Your task to perform on an android device: Go to Reddit.com Image 0: 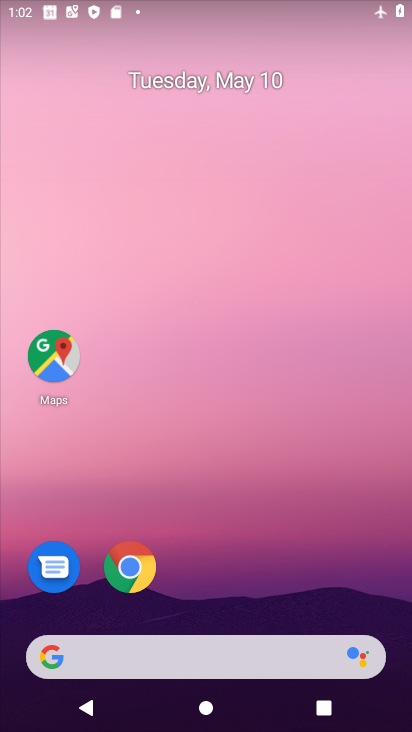
Step 0: drag from (390, 626) to (240, 40)
Your task to perform on an android device: Go to Reddit.com Image 1: 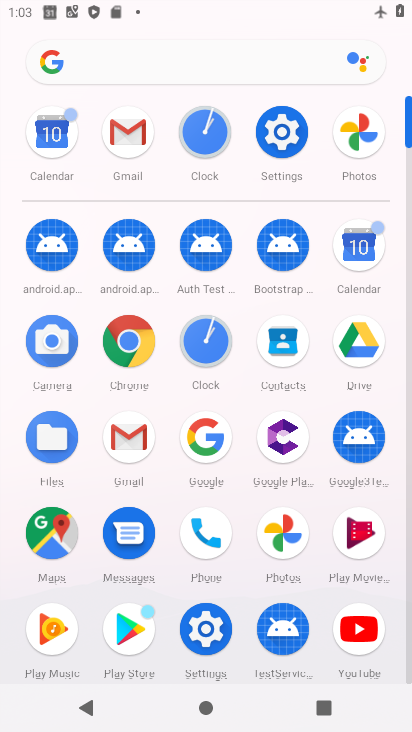
Step 1: click (143, 336)
Your task to perform on an android device: Go to Reddit.com Image 2: 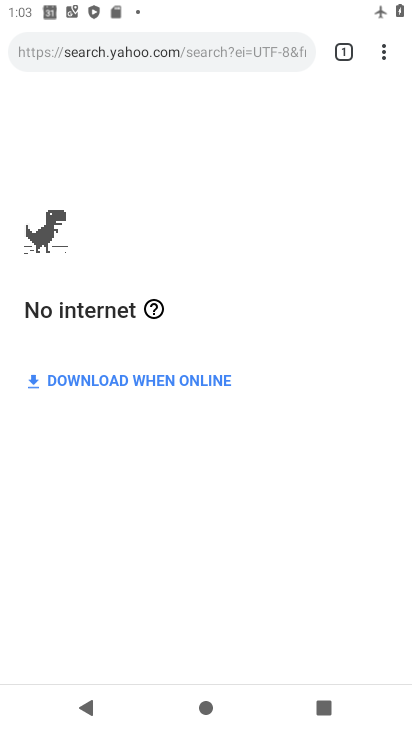
Step 2: press back button
Your task to perform on an android device: Go to Reddit.com Image 3: 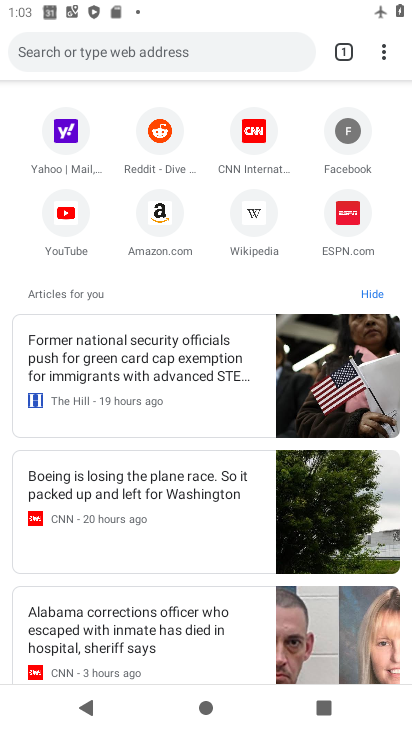
Step 3: click (159, 129)
Your task to perform on an android device: Go to Reddit.com Image 4: 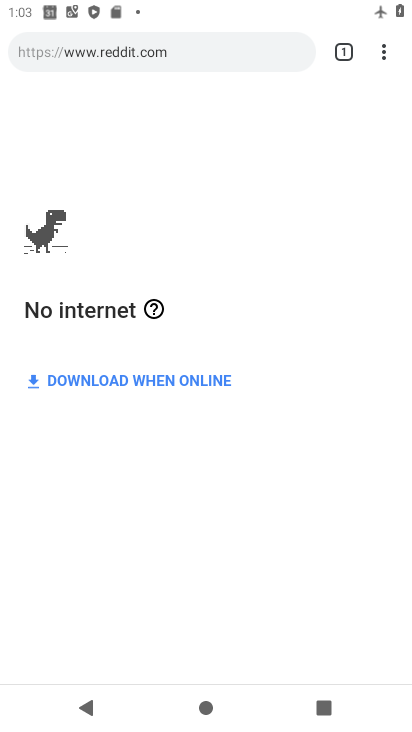
Step 4: task complete